Your task to perform on an android device: make emails show in primary in the gmail app Image 0: 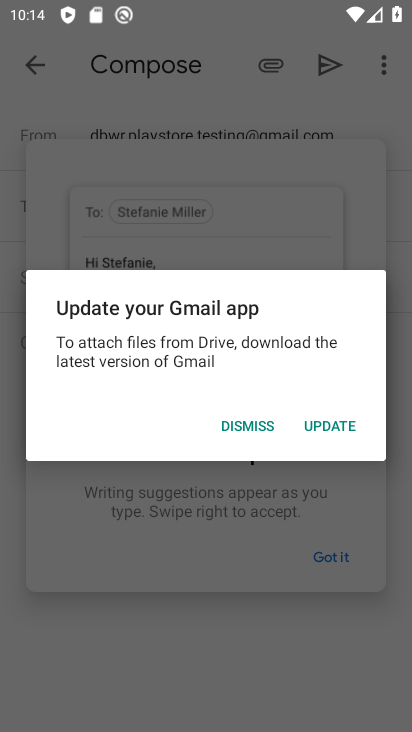
Step 0: press home button
Your task to perform on an android device: make emails show in primary in the gmail app Image 1: 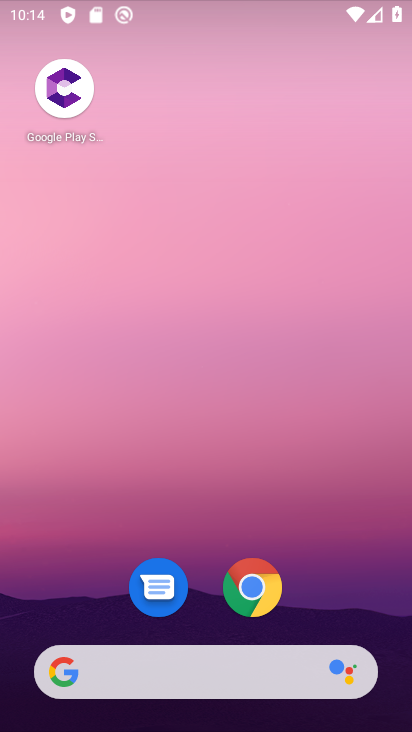
Step 1: drag from (332, 610) to (232, 16)
Your task to perform on an android device: make emails show in primary in the gmail app Image 2: 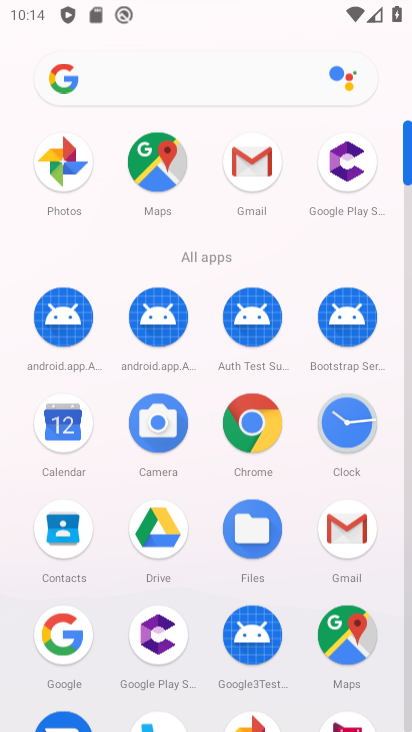
Step 2: click (251, 174)
Your task to perform on an android device: make emails show in primary in the gmail app Image 3: 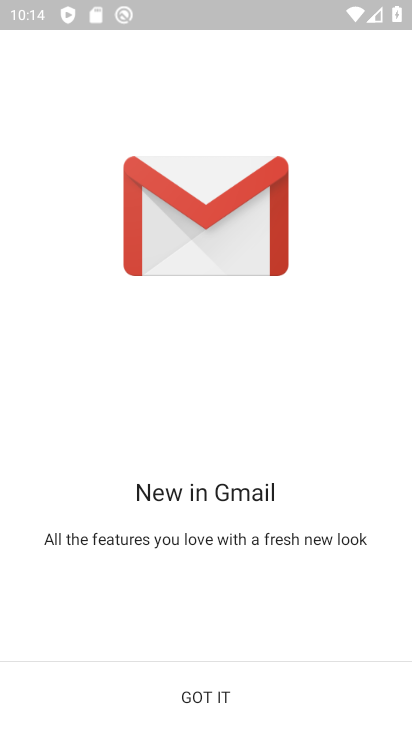
Step 3: click (223, 704)
Your task to perform on an android device: make emails show in primary in the gmail app Image 4: 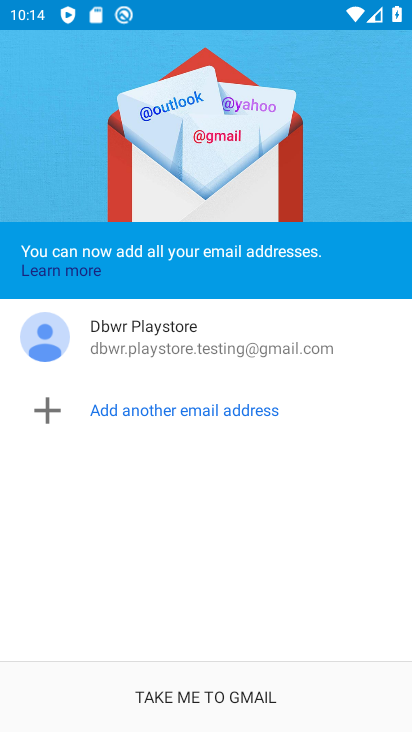
Step 4: click (223, 704)
Your task to perform on an android device: make emails show in primary in the gmail app Image 5: 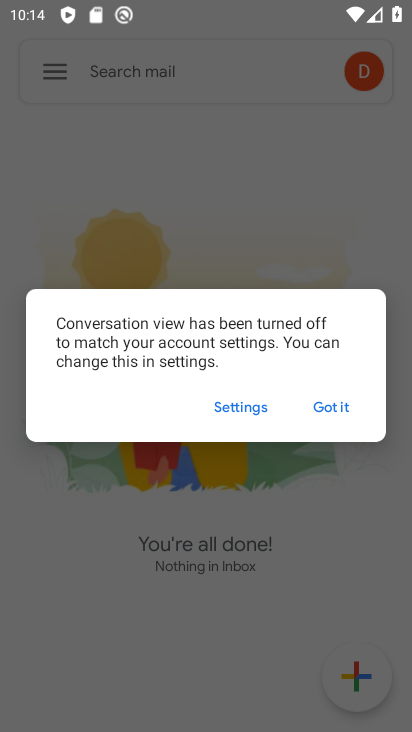
Step 5: click (325, 412)
Your task to perform on an android device: make emails show in primary in the gmail app Image 6: 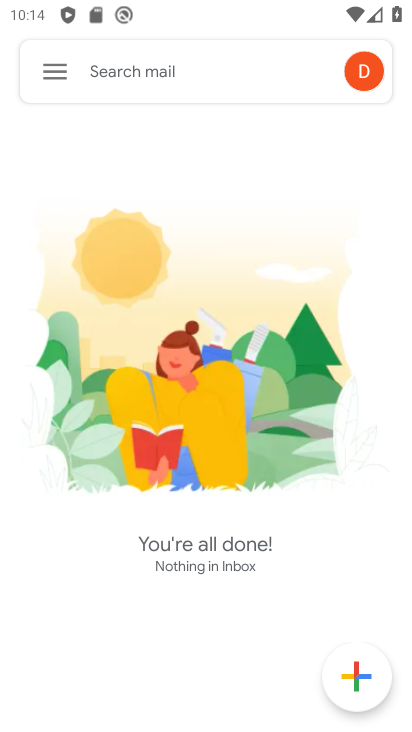
Step 6: click (46, 75)
Your task to perform on an android device: make emails show in primary in the gmail app Image 7: 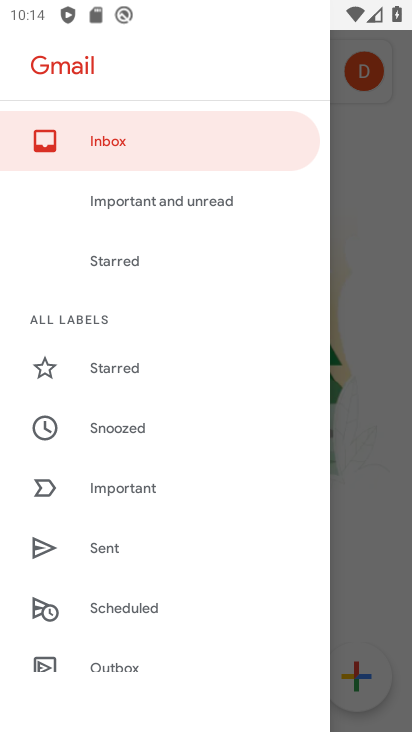
Step 7: drag from (173, 546) to (176, 173)
Your task to perform on an android device: make emails show in primary in the gmail app Image 8: 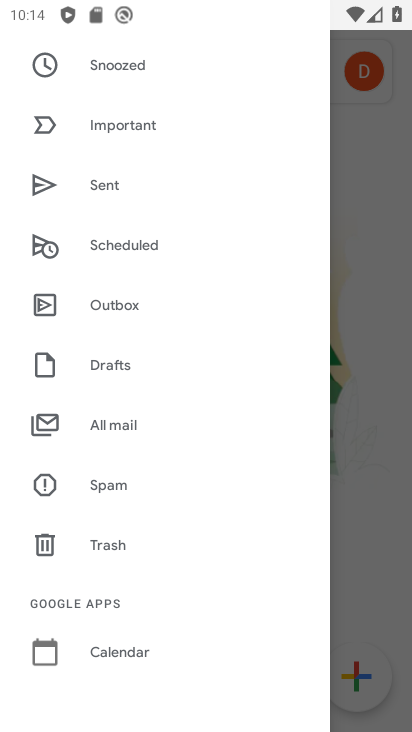
Step 8: drag from (149, 613) to (172, 232)
Your task to perform on an android device: make emails show in primary in the gmail app Image 9: 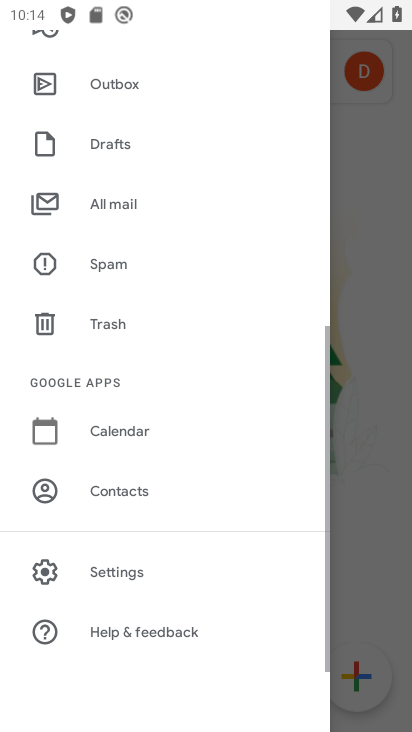
Step 9: click (137, 565)
Your task to perform on an android device: make emails show in primary in the gmail app Image 10: 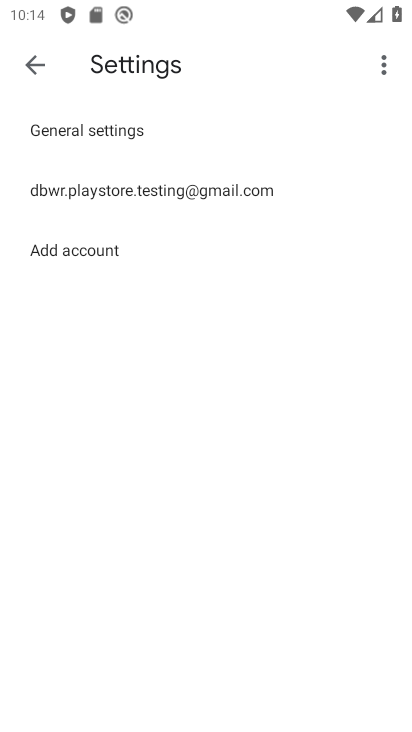
Step 10: click (109, 200)
Your task to perform on an android device: make emails show in primary in the gmail app Image 11: 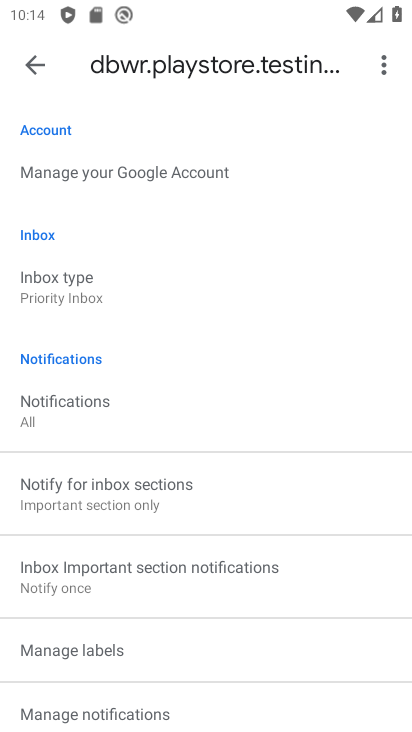
Step 11: click (82, 299)
Your task to perform on an android device: make emails show in primary in the gmail app Image 12: 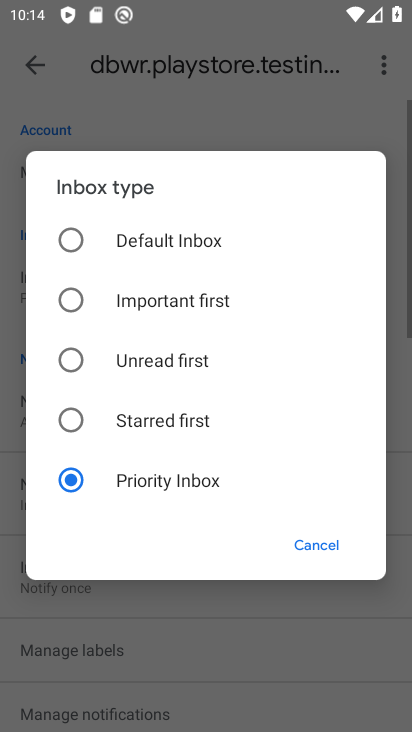
Step 12: click (66, 223)
Your task to perform on an android device: make emails show in primary in the gmail app Image 13: 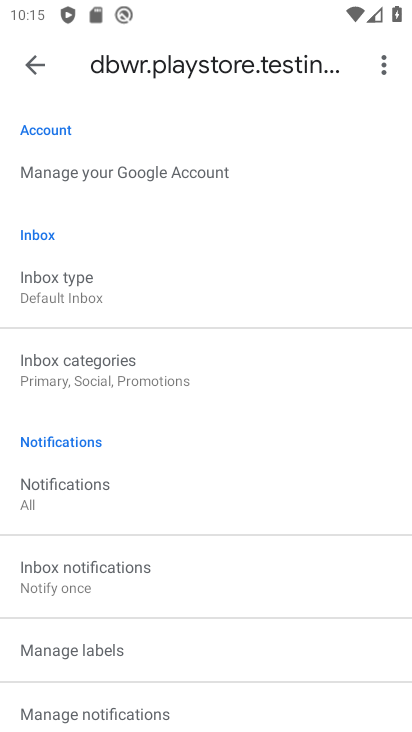
Step 13: task complete